Your task to perform on an android device: Go to Wikipedia Image 0: 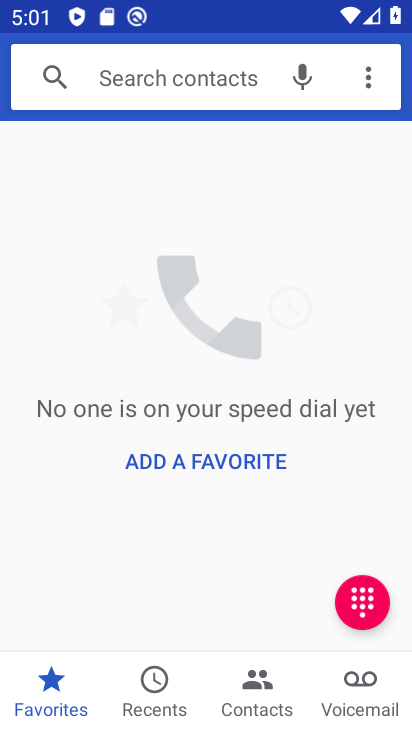
Step 0: press home button
Your task to perform on an android device: Go to Wikipedia Image 1: 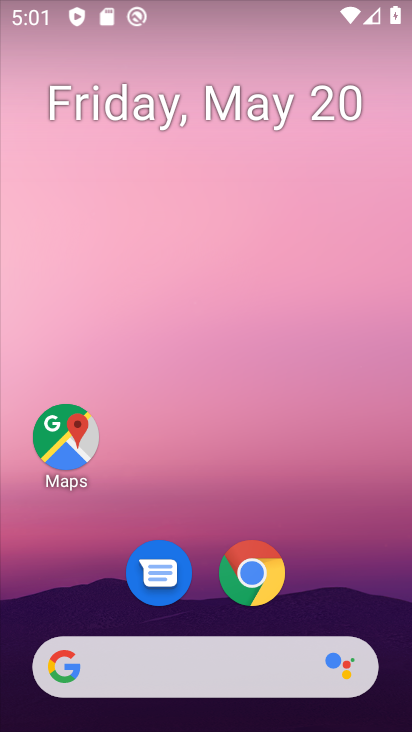
Step 1: click (271, 574)
Your task to perform on an android device: Go to Wikipedia Image 2: 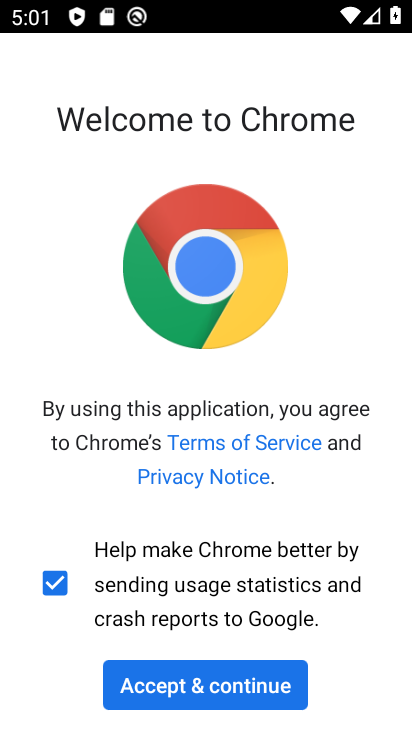
Step 2: click (252, 677)
Your task to perform on an android device: Go to Wikipedia Image 3: 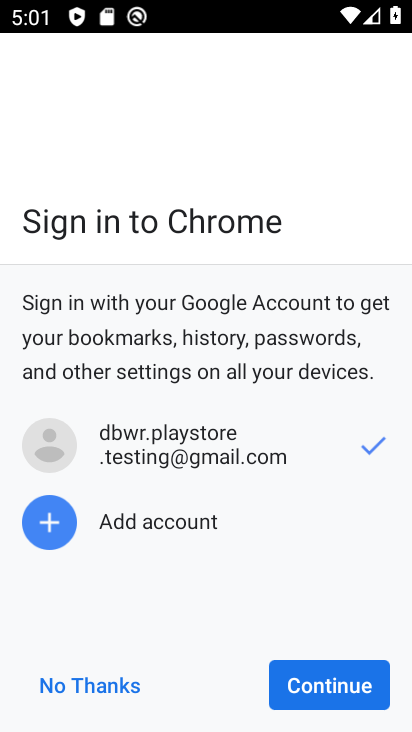
Step 3: click (347, 694)
Your task to perform on an android device: Go to Wikipedia Image 4: 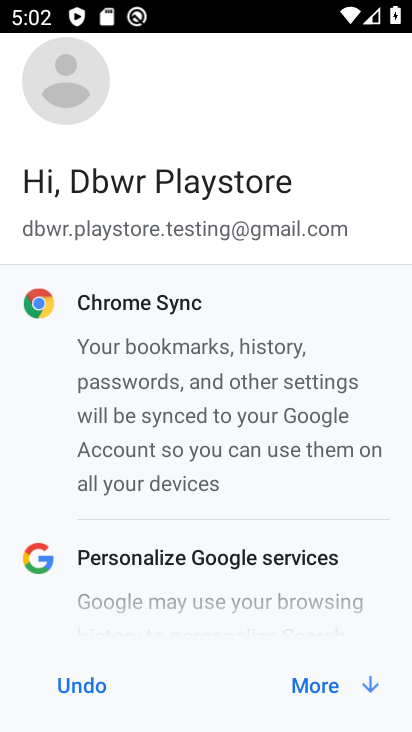
Step 4: click (344, 683)
Your task to perform on an android device: Go to Wikipedia Image 5: 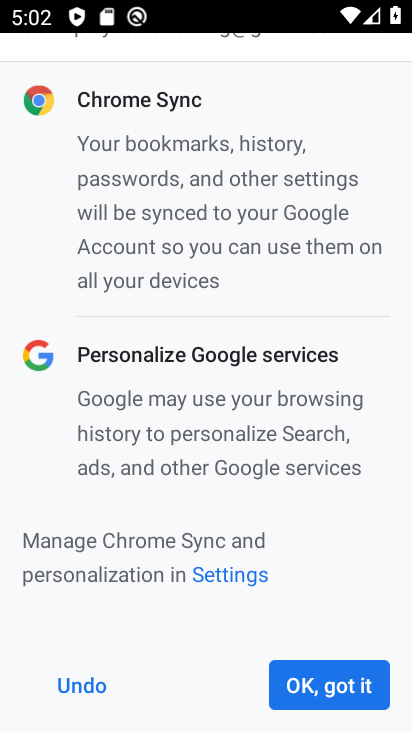
Step 5: click (344, 682)
Your task to perform on an android device: Go to Wikipedia Image 6: 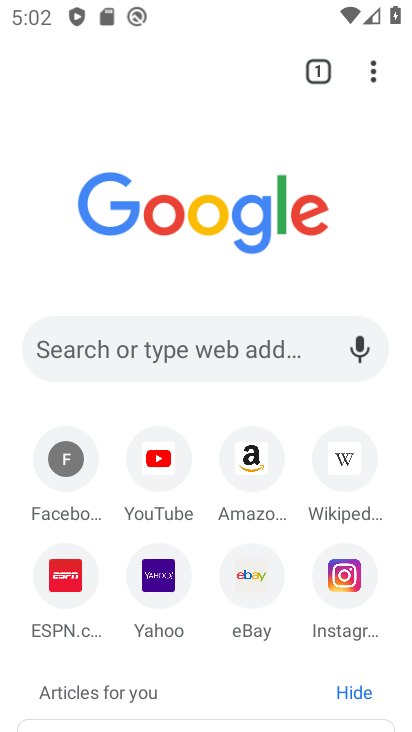
Step 6: click (354, 460)
Your task to perform on an android device: Go to Wikipedia Image 7: 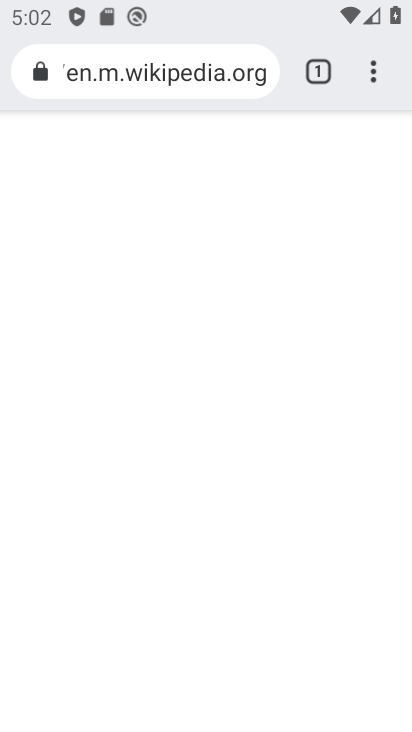
Step 7: task complete